Your task to perform on an android device: change keyboard looks Image 0: 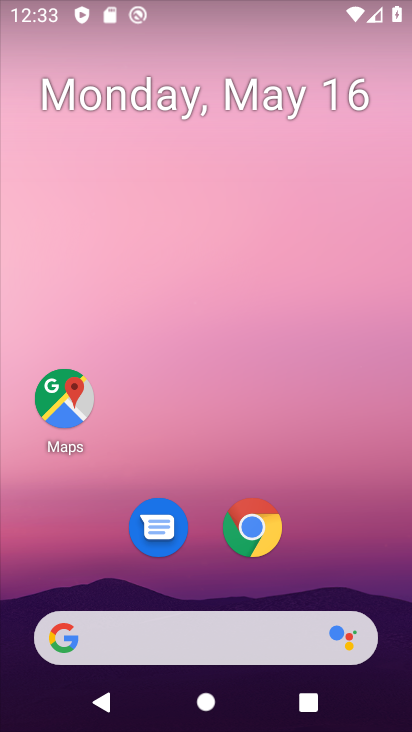
Step 0: drag from (192, 411) to (224, 147)
Your task to perform on an android device: change keyboard looks Image 1: 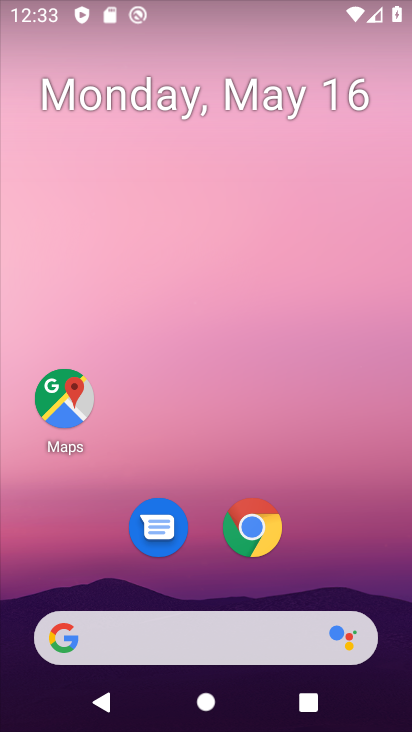
Step 1: drag from (207, 553) to (244, 223)
Your task to perform on an android device: change keyboard looks Image 2: 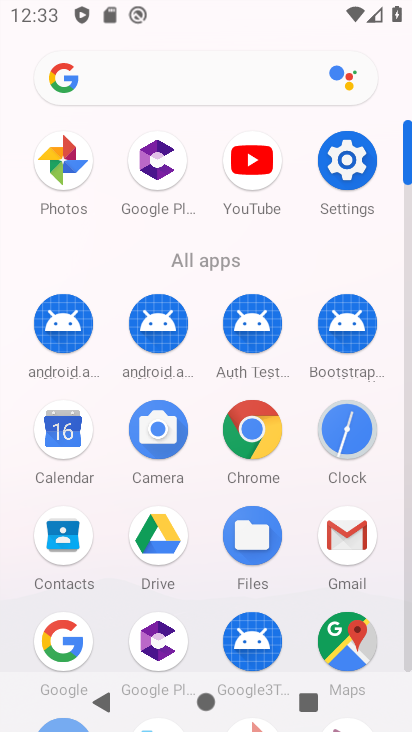
Step 2: click (349, 157)
Your task to perform on an android device: change keyboard looks Image 3: 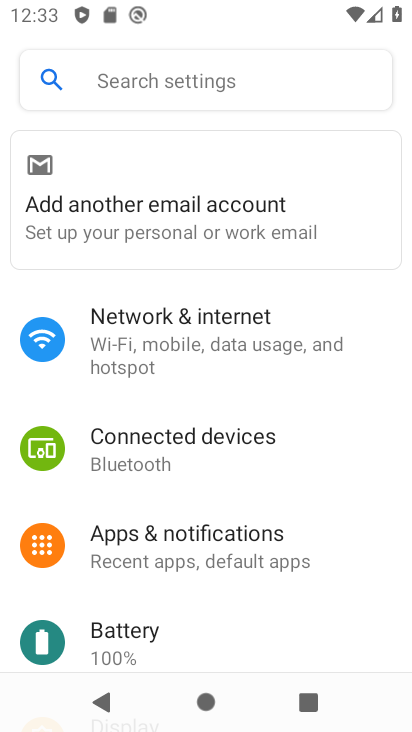
Step 3: drag from (204, 574) to (282, 234)
Your task to perform on an android device: change keyboard looks Image 4: 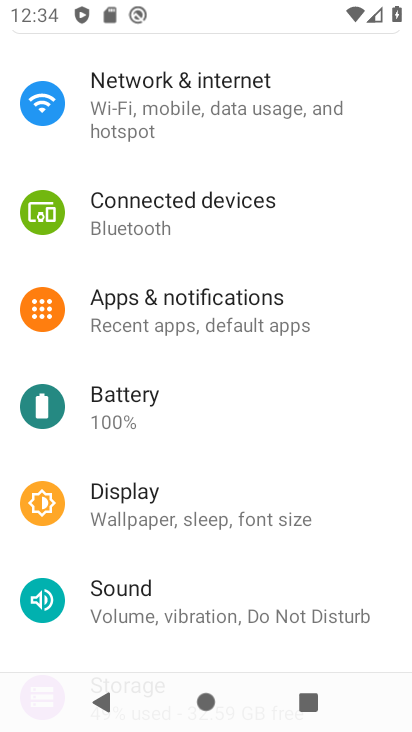
Step 4: drag from (241, 546) to (274, 233)
Your task to perform on an android device: change keyboard looks Image 5: 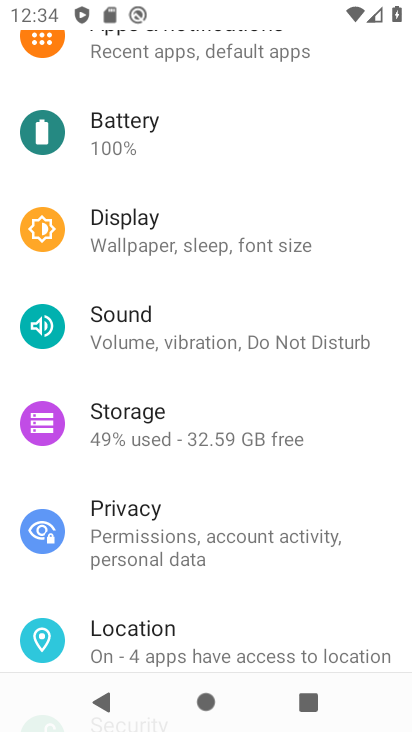
Step 5: click (238, 245)
Your task to perform on an android device: change keyboard looks Image 6: 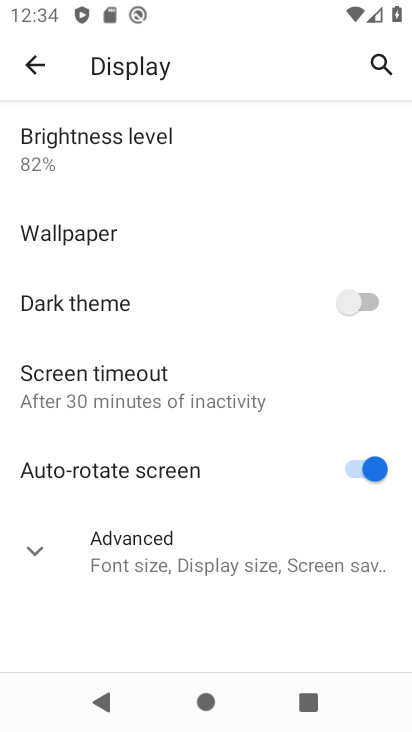
Step 6: click (45, 541)
Your task to perform on an android device: change keyboard looks Image 7: 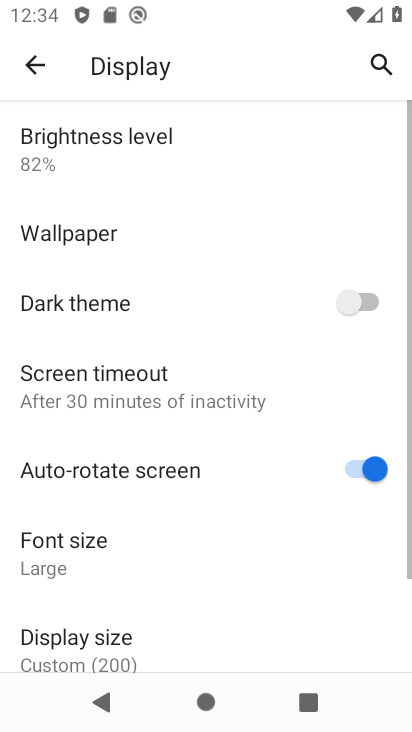
Step 7: drag from (129, 594) to (190, 168)
Your task to perform on an android device: change keyboard looks Image 8: 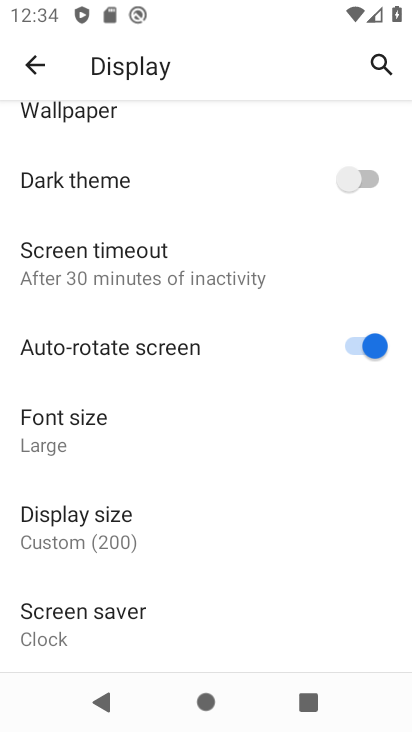
Step 8: drag from (171, 583) to (185, 362)
Your task to perform on an android device: change keyboard looks Image 9: 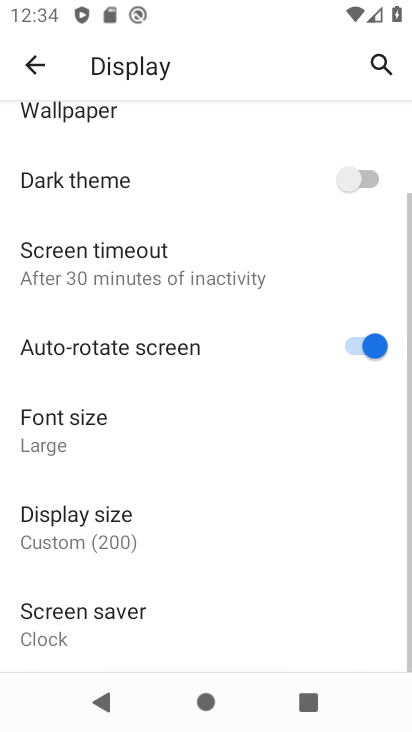
Step 9: click (32, 77)
Your task to perform on an android device: change keyboard looks Image 10: 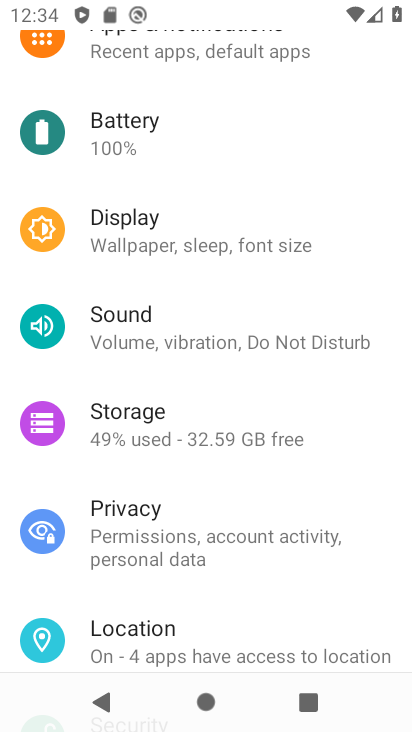
Step 10: task complete